Your task to perform on an android device: toggle notifications settings in the gmail app Image 0: 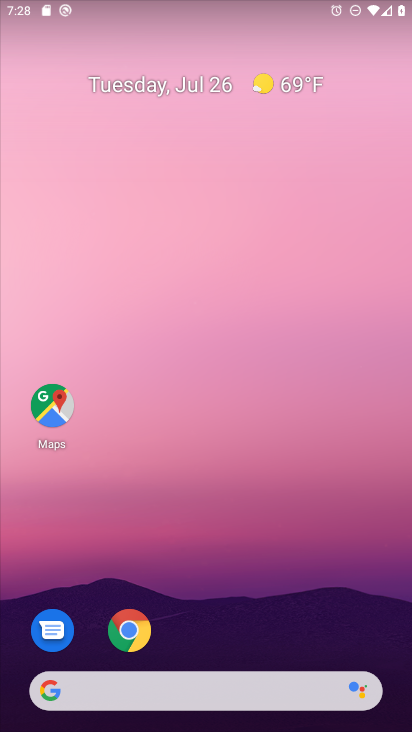
Step 0: drag from (217, 607) to (201, 197)
Your task to perform on an android device: toggle notifications settings in the gmail app Image 1: 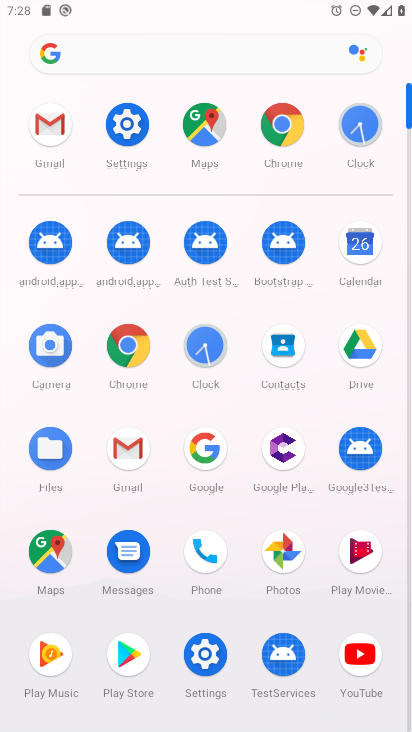
Step 1: click (133, 479)
Your task to perform on an android device: toggle notifications settings in the gmail app Image 2: 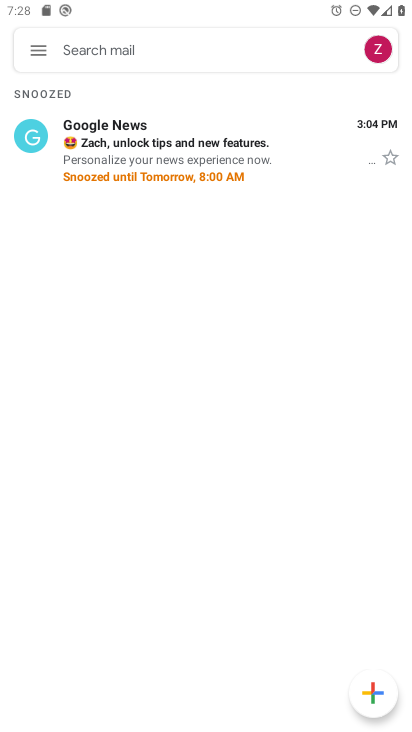
Step 2: click (49, 54)
Your task to perform on an android device: toggle notifications settings in the gmail app Image 3: 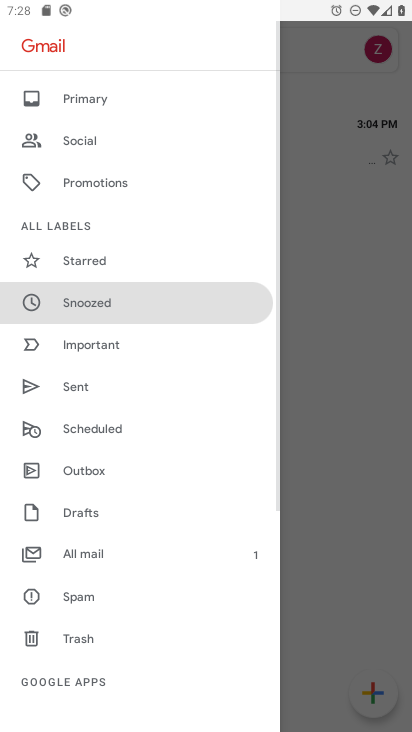
Step 3: drag from (114, 601) to (143, 319)
Your task to perform on an android device: toggle notifications settings in the gmail app Image 4: 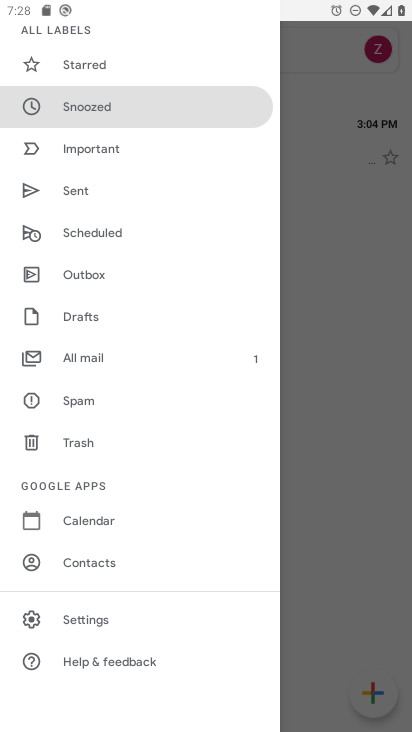
Step 4: click (110, 619)
Your task to perform on an android device: toggle notifications settings in the gmail app Image 5: 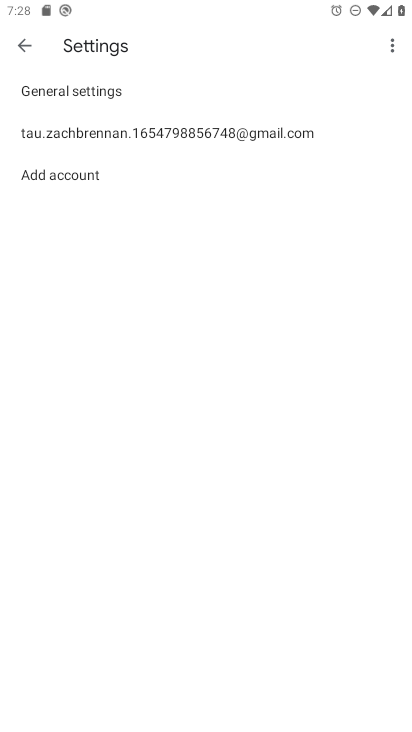
Step 5: click (188, 130)
Your task to perform on an android device: toggle notifications settings in the gmail app Image 6: 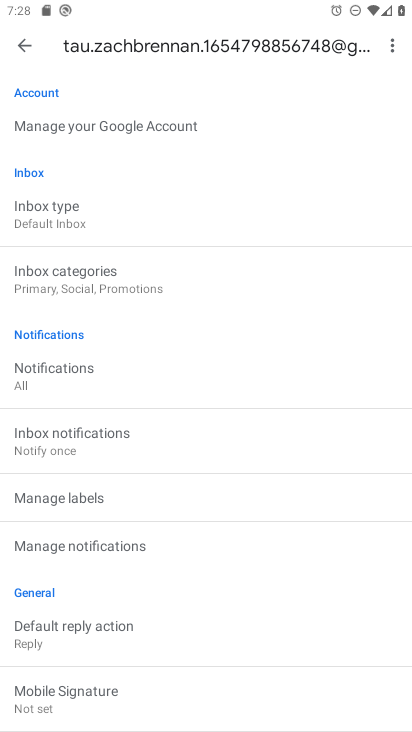
Step 6: click (125, 545)
Your task to perform on an android device: toggle notifications settings in the gmail app Image 7: 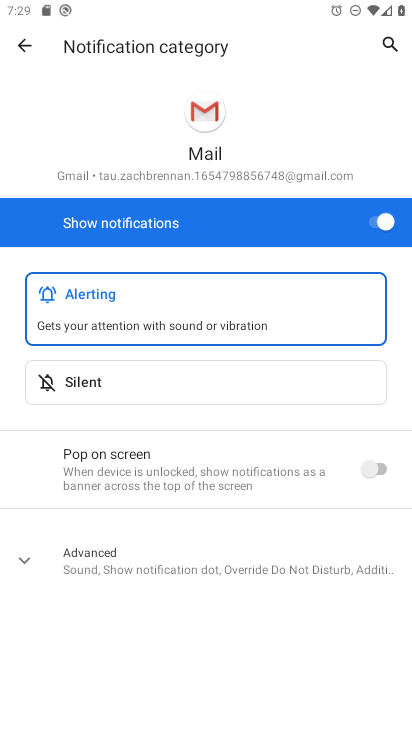
Step 7: click (387, 219)
Your task to perform on an android device: toggle notifications settings in the gmail app Image 8: 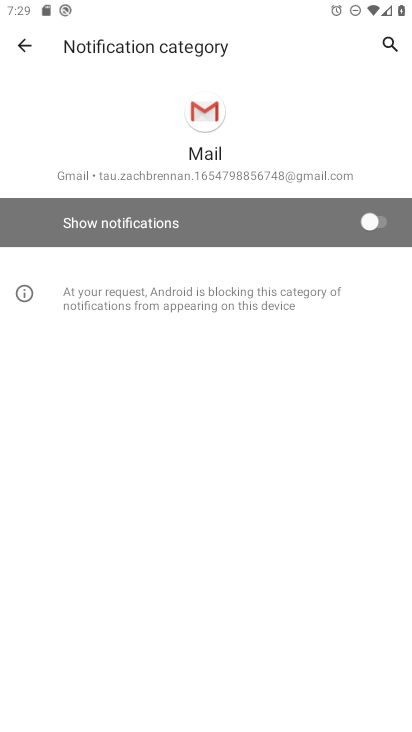
Step 8: task complete